Your task to perform on an android device: Go to Google maps Image 0: 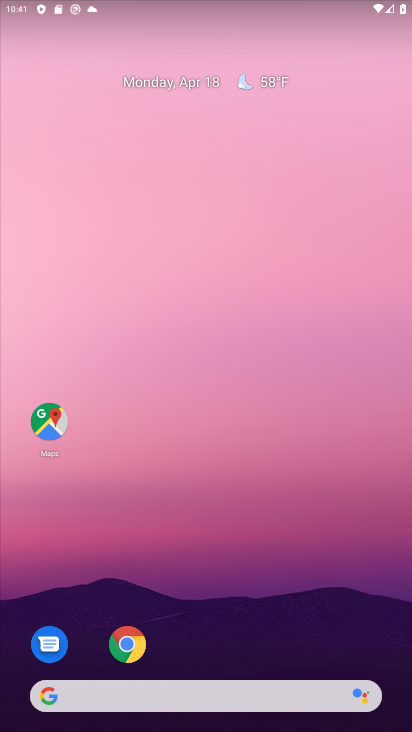
Step 0: click (170, 656)
Your task to perform on an android device: Go to Google maps Image 1: 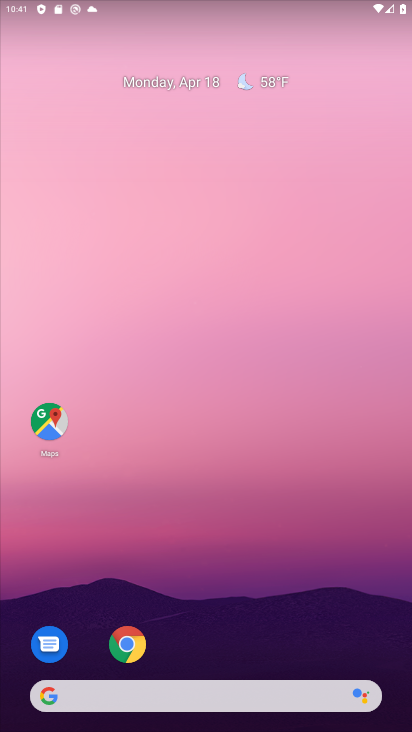
Step 1: click (34, 421)
Your task to perform on an android device: Go to Google maps Image 2: 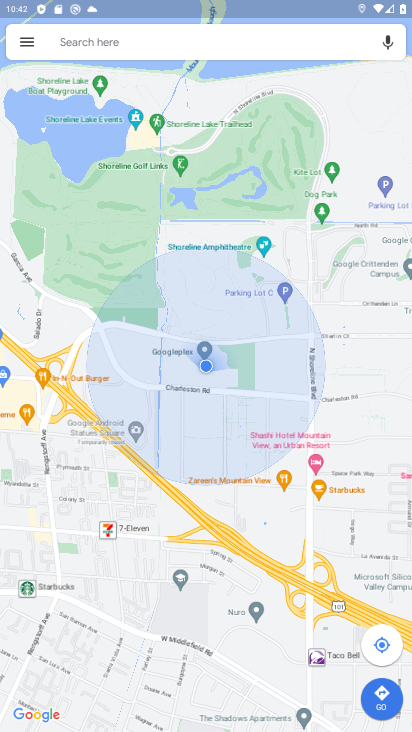
Step 2: task complete